Your task to perform on an android device: toggle priority inbox in the gmail app Image 0: 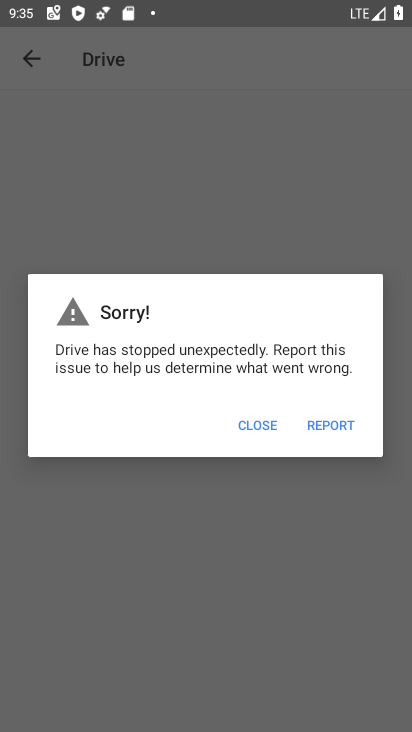
Step 0: press home button
Your task to perform on an android device: toggle priority inbox in the gmail app Image 1: 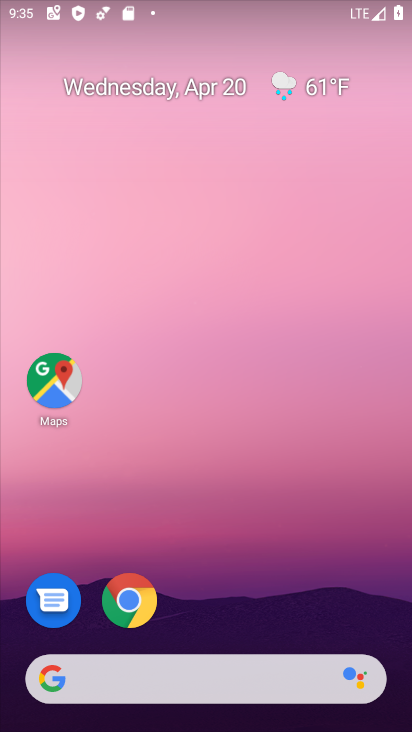
Step 1: drag from (242, 611) to (286, 164)
Your task to perform on an android device: toggle priority inbox in the gmail app Image 2: 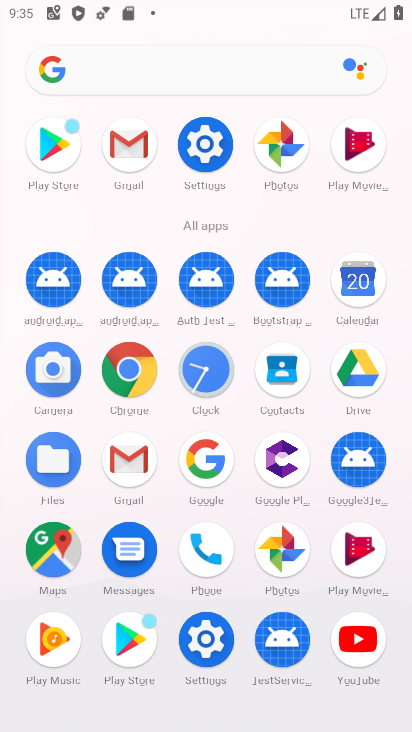
Step 2: click (130, 153)
Your task to perform on an android device: toggle priority inbox in the gmail app Image 3: 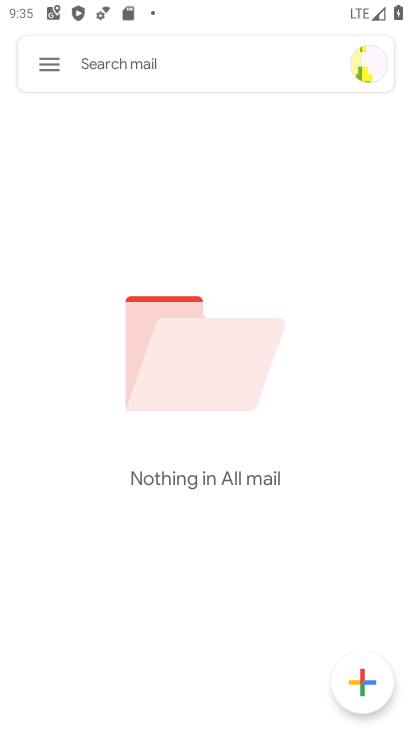
Step 3: click (55, 69)
Your task to perform on an android device: toggle priority inbox in the gmail app Image 4: 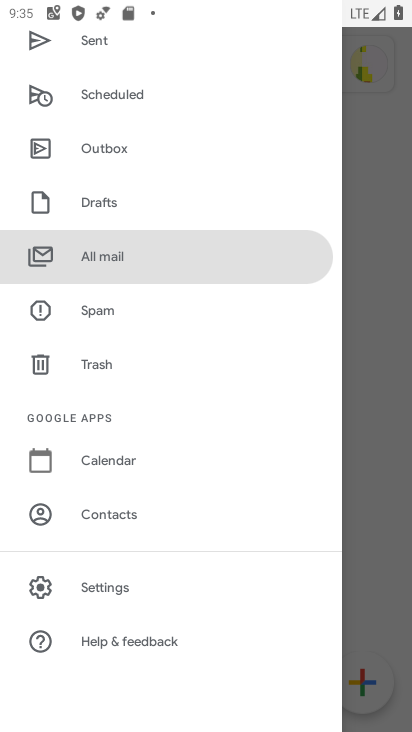
Step 4: click (127, 595)
Your task to perform on an android device: toggle priority inbox in the gmail app Image 5: 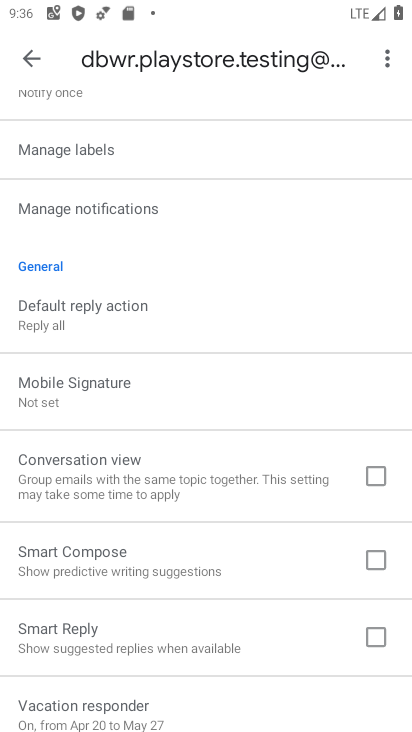
Step 5: drag from (149, 160) to (138, 591)
Your task to perform on an android device: toggle priority inbox in the gmail app Image 6: 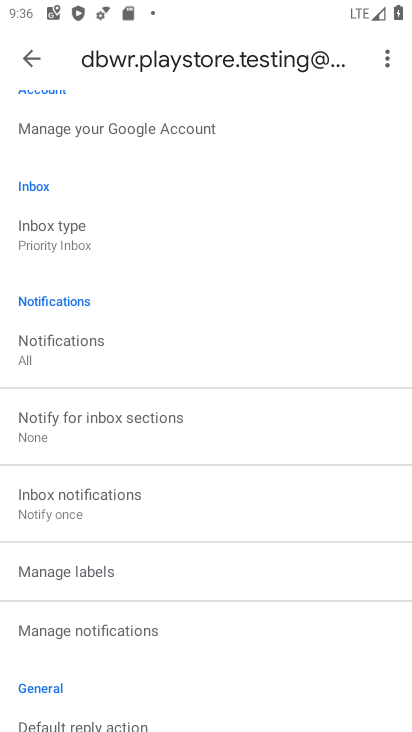
Step 6: click (55, 258)
Your task to perform on an android device: toggle priority inbox in the gmail app Image 7: 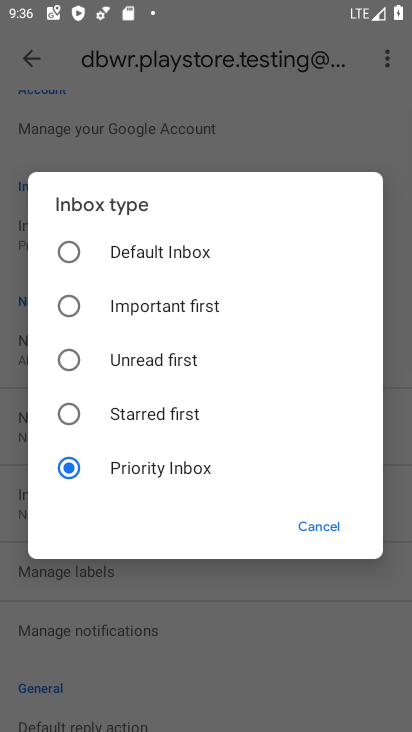
Step 7: click (171, 305)
Your task to perform on an android device: toggle priority inbox in the gmail app Image 8: 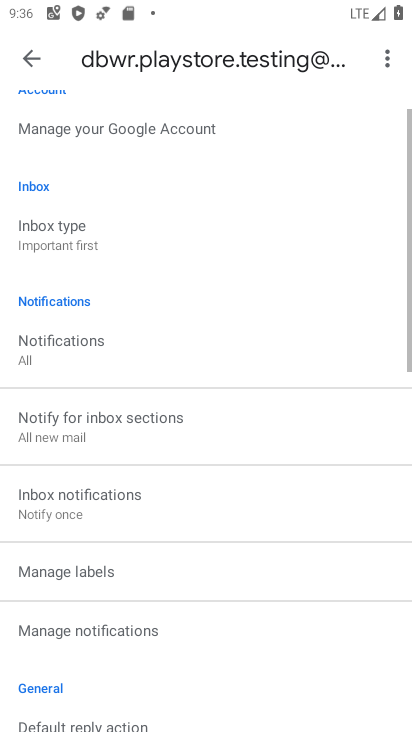
Step 8: task complete